Your task to perform on an android device: turn off location Image 0: 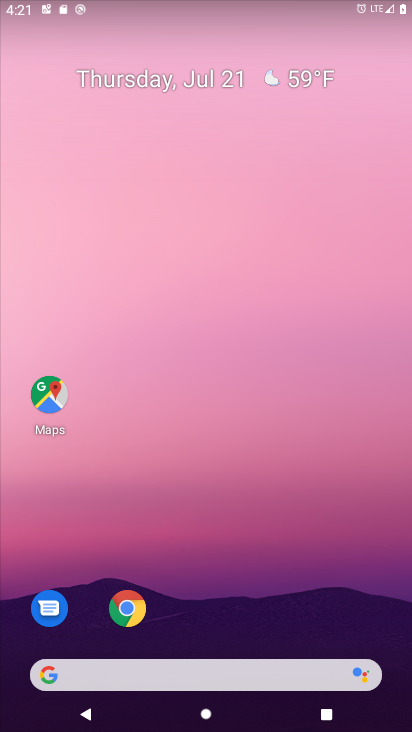
Step 0: drag from (333, 654) to (350, 7)
Your task to perform on an android device: turn off location Image 1: 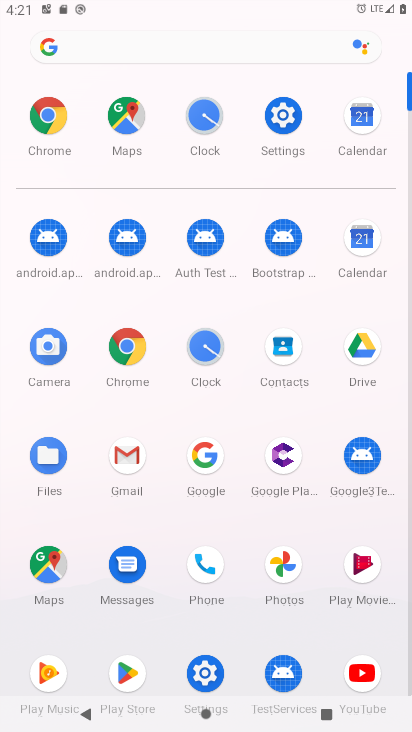
Step 1: click (287, 124)
Your task to perform on an android device: turn off location Image 2: 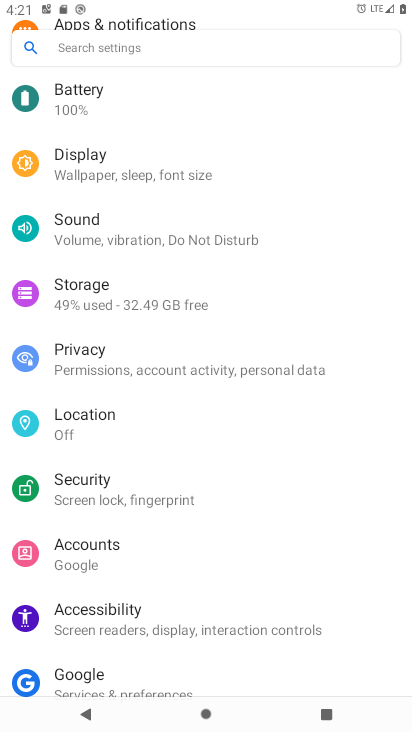
Step 2: click (114, 422)
Your task to perform on an android device: turn off location Image 3: 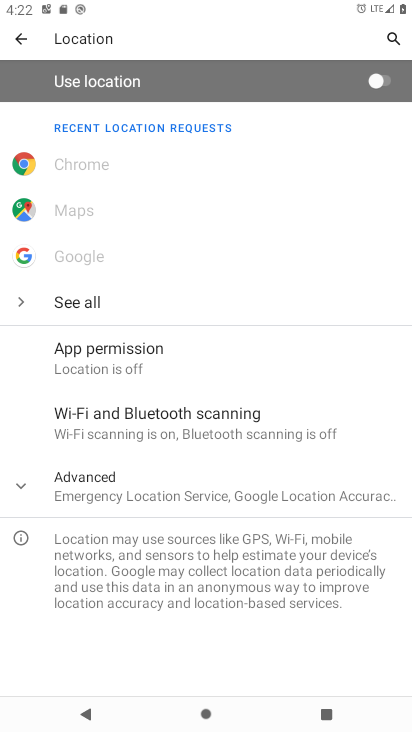
Step 3: task complete